Your task to perform on an android device: Check the news Image 0: 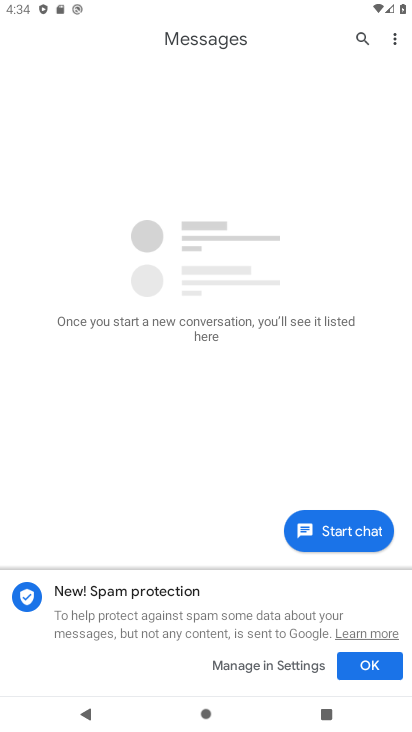
Step 0: press home button
Your task to perform on an android device: Check the news Image 1: 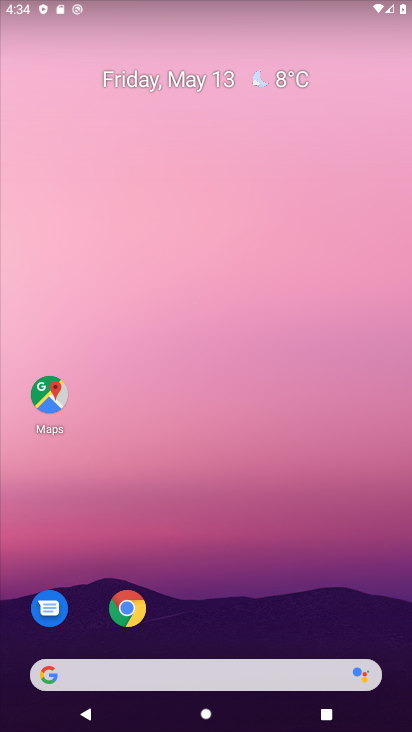
Step 1: drag from (200, 577) to (215, 147)
Your task to perform on an android device: Check the news Image 2: 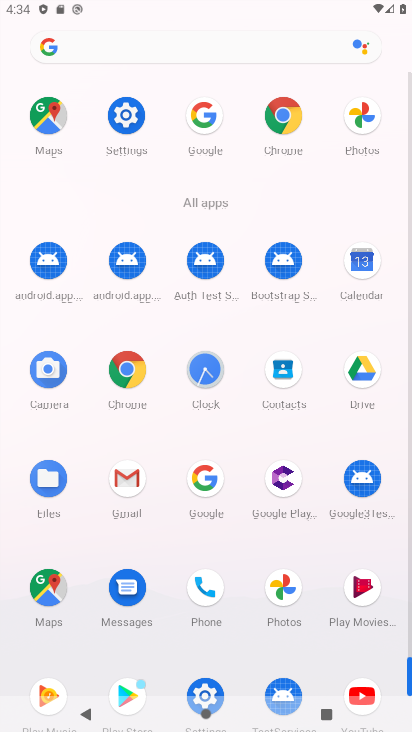
Step 2: click (201, 116)
Your task to perform on an android device: Check the news Image 3: 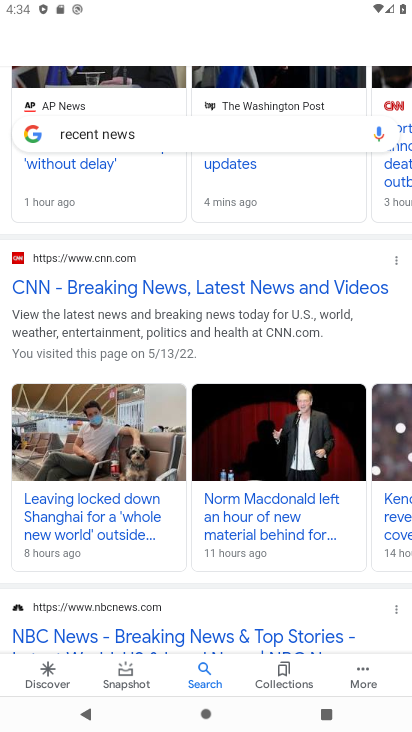
Step 3: drag from (175, 210) to (201, 545)
Your task to perform on an android device: Check the news Image 4: 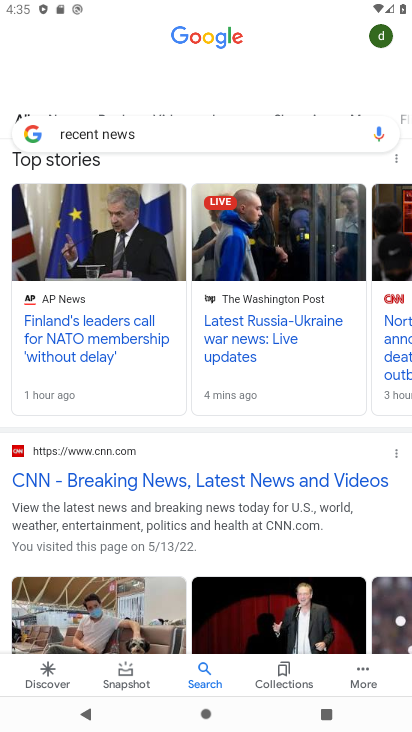
Step 4: click (320, 127)
Your task to perform on an android device: Check the news Image 5: 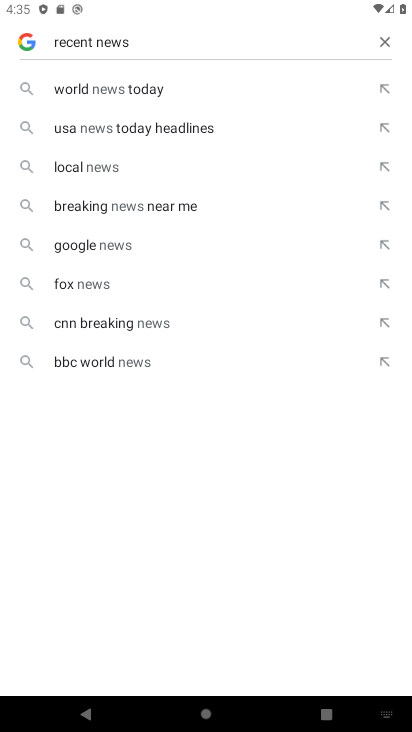
Step 5: click (381, 43)
Your task to perform on an android device: Check the news Image 6: 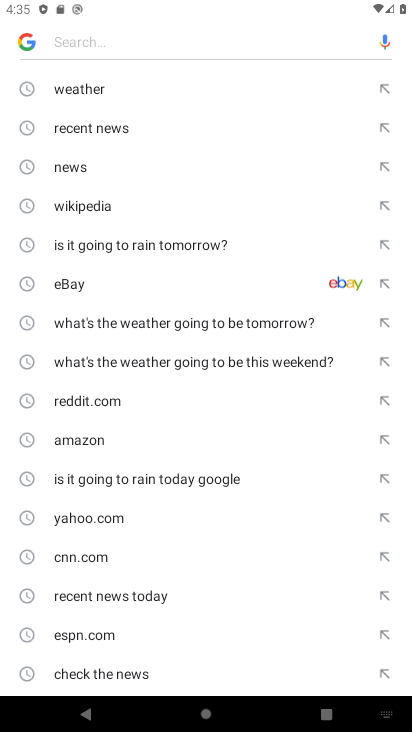
Step 6: click (70, 167)
Your task to perform on an android device: Check the news Image 7: 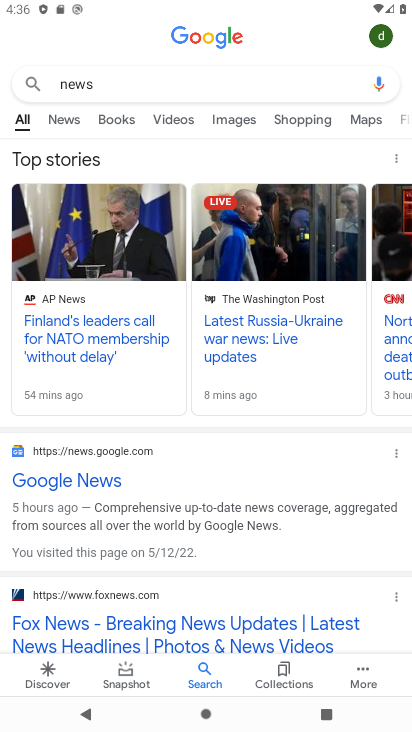
Step 7: task complete